Your task to perform on an android device: Search for Mexican restaurants on Maps Image 0: 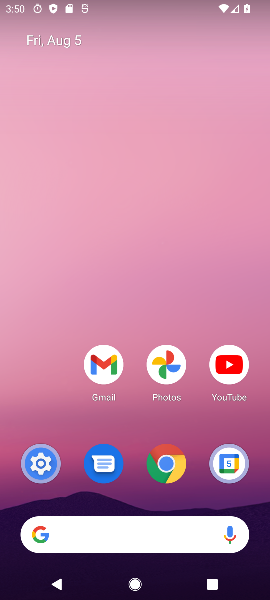
Step 0: drag from (176, 545) to (176, 289)
Your task to perform on an android device: Search for Mexican restaurants on Maps Image 1: 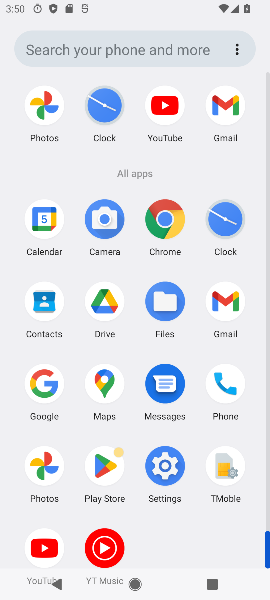
Step 1: click (101, 382)
Your task to perform on an android device: Search for Mexican restaurants on Maps Image 2: 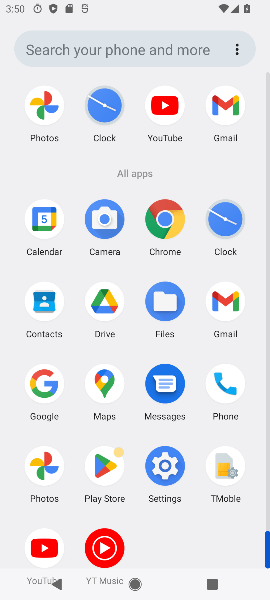
Step 2: click (101, 382)
Your task to perform on an android device: Search for Mexican restaurants on Maps Image 3: 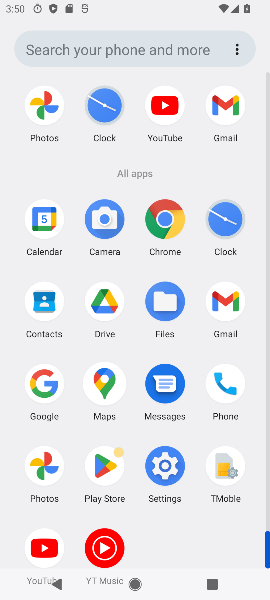
Step 3: click (102, 382)
Your task to perform on an android device: Search for Mexican restaurants on Maps Image 4: 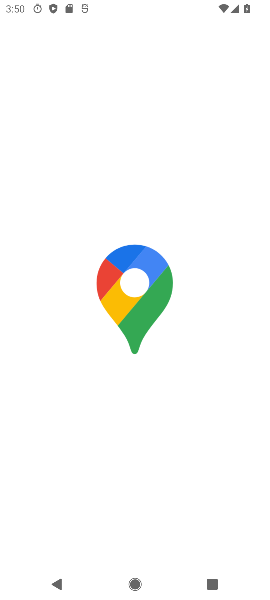
Step 4: click (102, 382)
Your task to perform on an android device: Search for Mexican restaurants on Maps Image 5: 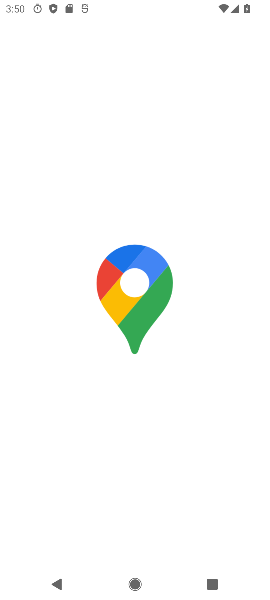
Step 5: click (102, 382)
Your task to perform on an android device: Search for Mexican restaurants on Maps Image 6: 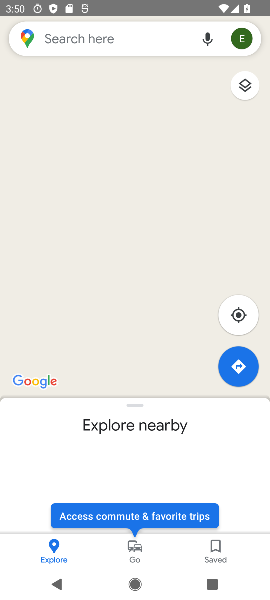
Step 6: click (51, 25)
Your task to perform on an android device: Search for Mexican restaurants on Maps Image 7: 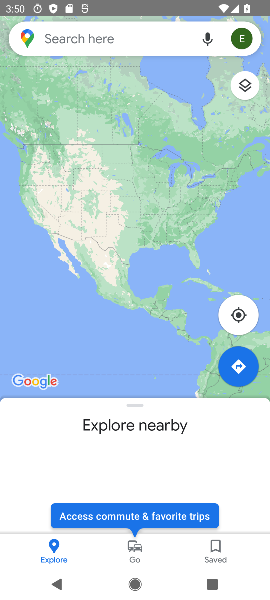
Step 7: click (51, 33)
Your task to perform on an android device: Search for Mexican restaurants on Maps Image 8: 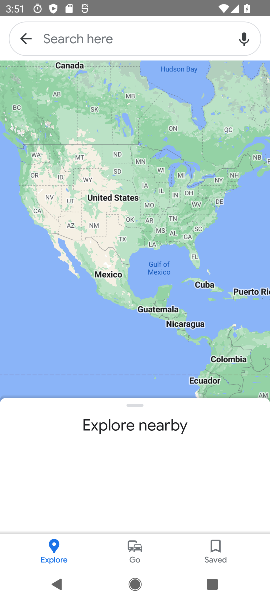
Step 8: click (51, 33)
Your task to perform on an android device: Search for Mexican restaurants on Maps Image 9: 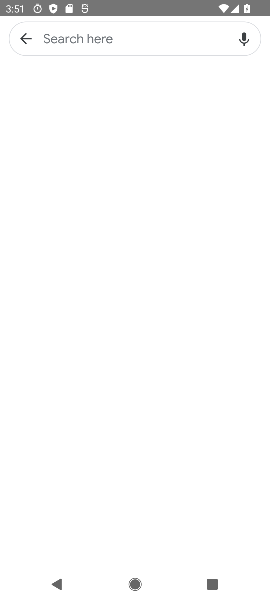
Step 9: click (51, 33)
Your task to perform on an android device: Search for Mexican restaurants on Maps Image 10: 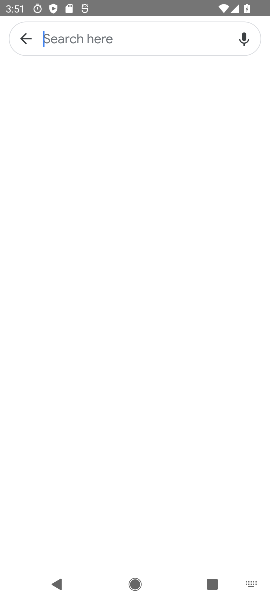
Step 10: click (51, 33)
Your task to perform on an android device: Search for Mexican restaurants on Maps Image 11: 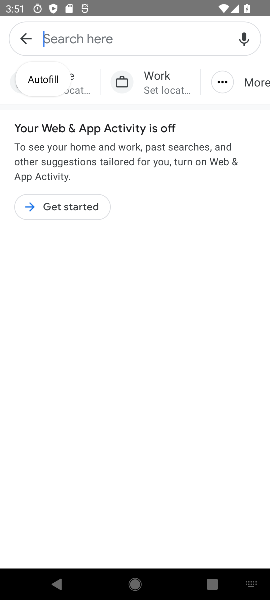
Step 11: type "mexican restaurants"
Your task to perform on an android device: Search for Mexican restaurants on Maps Image 12: 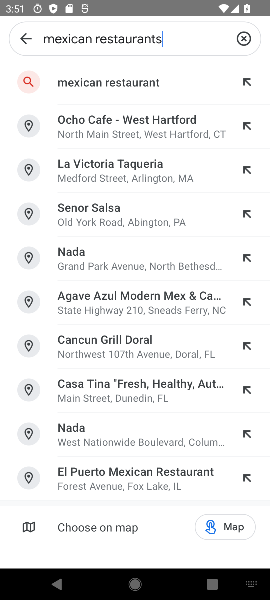
Step 12: click (89, 77)
Your task to perform on an android device: Search for Mexican restaurants on Maps Image 13: 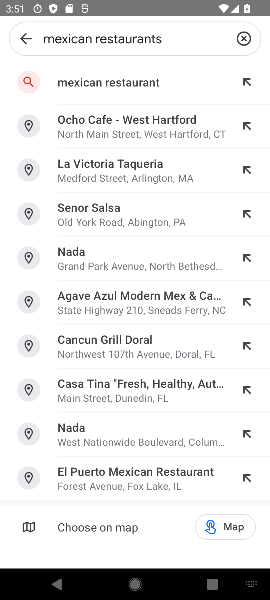
Step 13: click (91, 77)
Your task to perform on an android device: Search for Mexican restaurants on Maps Image 14: 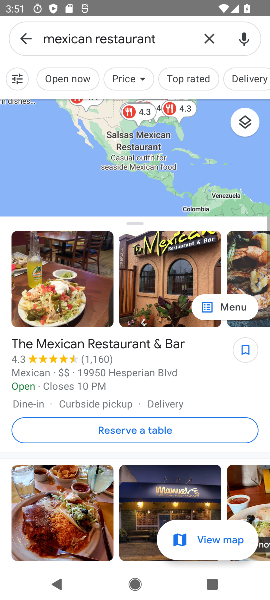
Step 14: task complete